Your task to perform on an android device: allow notifications from all sites in the chrome app Image 0: 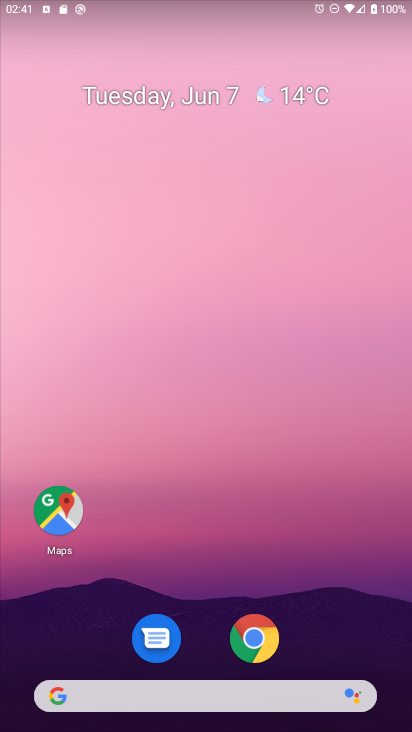
Step 0: drag from (245, 699) to (206, 245)
Your task to perform on an android device: allow notifications from all sites in the chrome app Image 1: 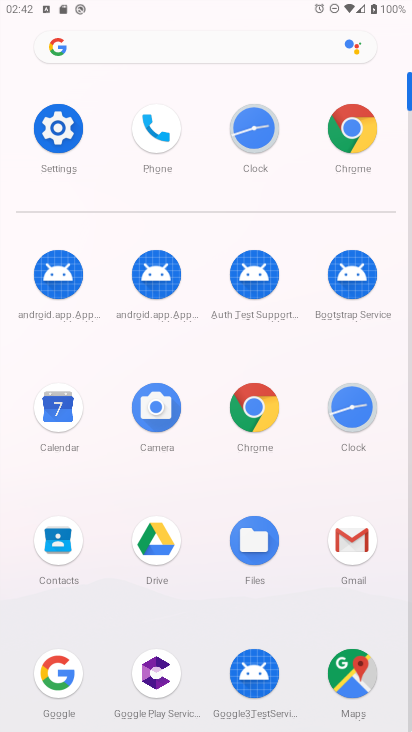
Step 1: click (256, 394)
Your task to perform on an android device: allow notifications from all sites in the chrome app Image 2: 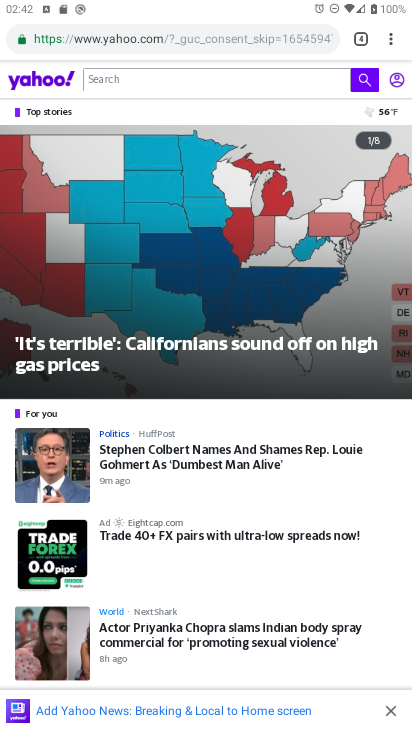
Step 2: click (389, 45)
Your task to perform on an android device: allow notifications from all sites in the chrome app Image 3: 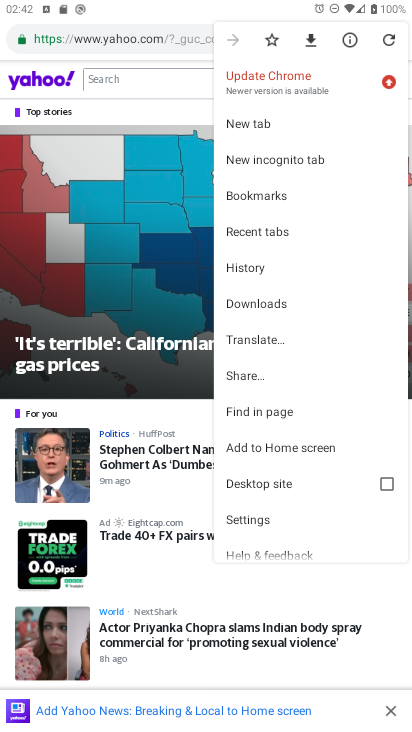
Step 3: click (258, 520)
Your task to perform on an android device: allow notifications from all sites in the chrome app Image 4: 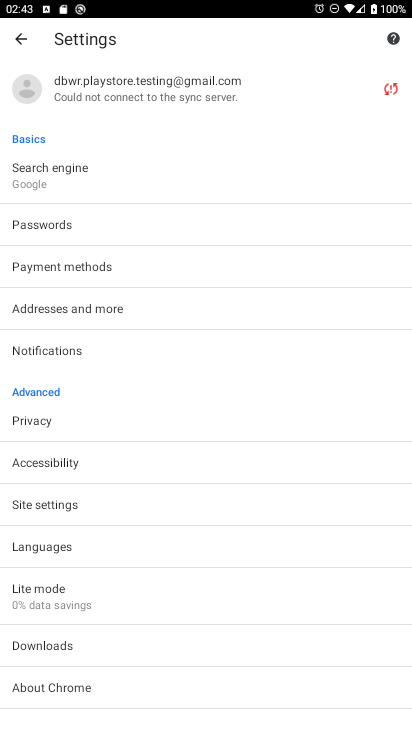
Step 4: click (55, 496)
Your task to perform on an android device: allow notifications from all sites in the chrome app Image 5: 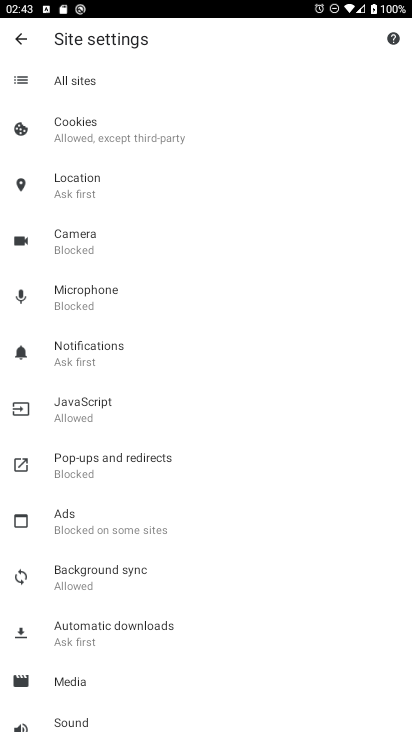
Step 5: click (101, 346)
Your task to perform on an android device: allow notifications from all sites in the chrome app Image 6: 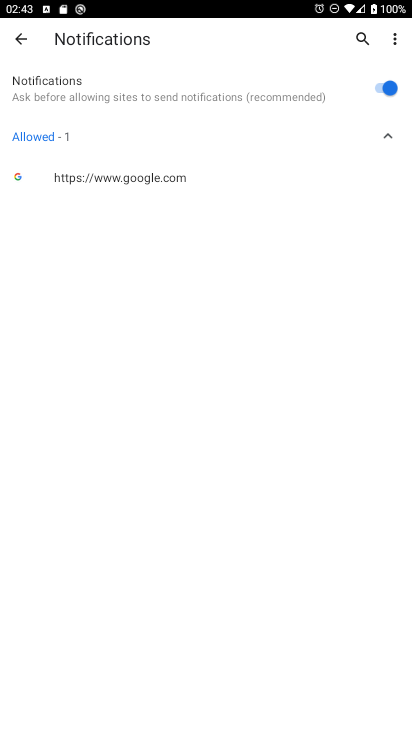
Step 6: click (380, 93)
Your task to perform on an android device: allow notifications from all sites in the chrome app Image 7: 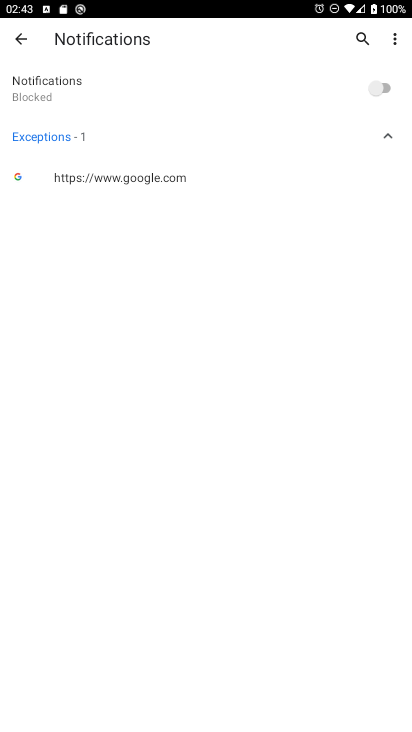
Step 7: click (380, 93)
Your task to perform on an android device: allow notifications from all sites in the chrome app Image 8: 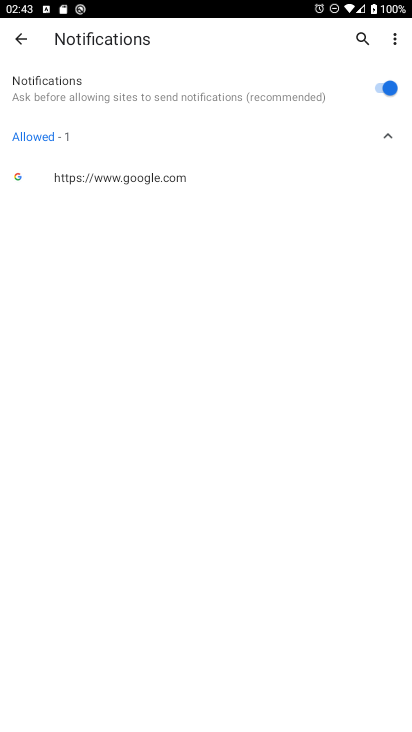
Step 8: press home button
Your task to perform on an android device: allow notifications from all sites in the chrome app Image 9: 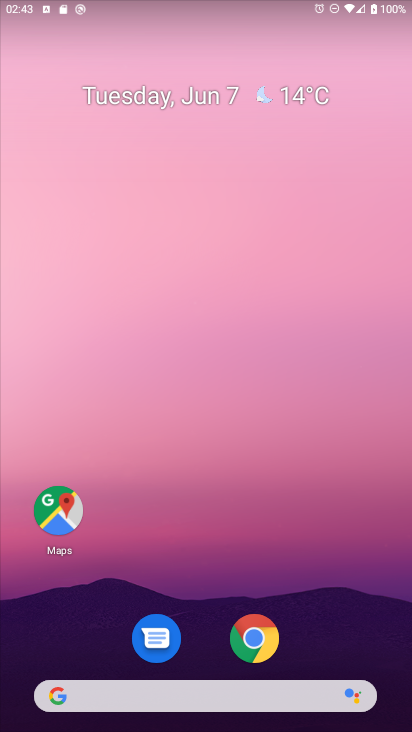
Step 9: drag from (232, 709) to (153, 303)
Your task to perform on an android device: allow notifications from all sites in the chrome app Image 10: 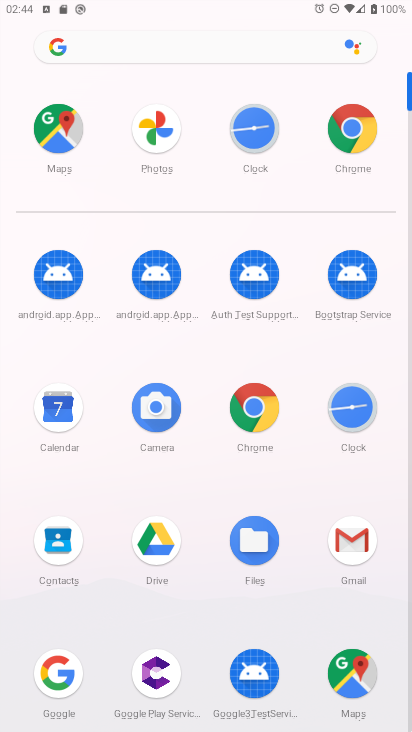
Step 10: click (361, 125)
Your task to perform on an android device: allow notifications from all sites in the chrome app Image 11: 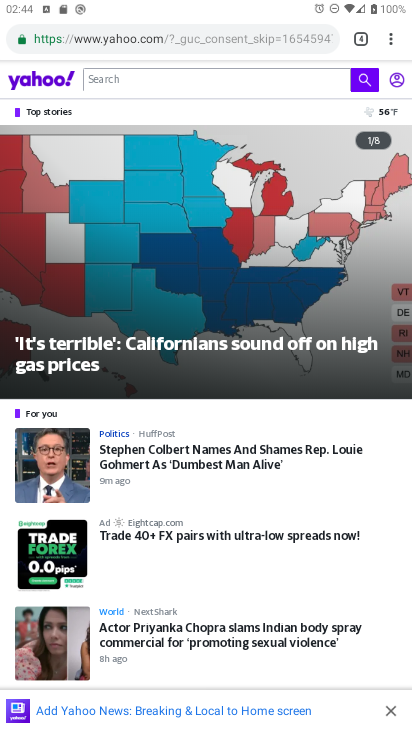
Step 11: click (382, 44)
Your task to perform on an android device: allow notifications from all sites in the chrome app Image 12: 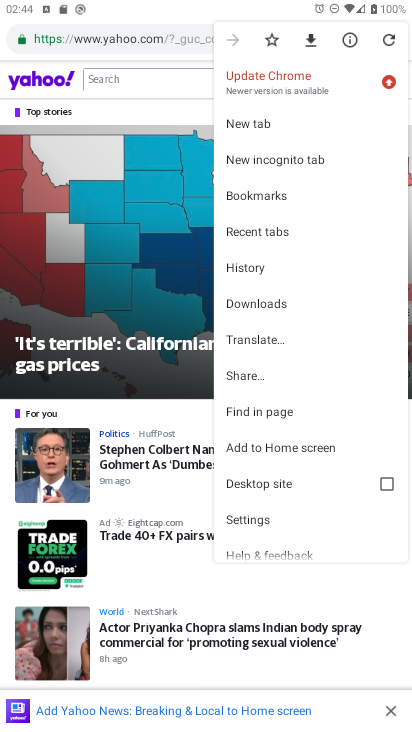
Step 12: click (249, 524)
Your task to perform on an android device: allow notifications from all sites in the chrome app Image 13: 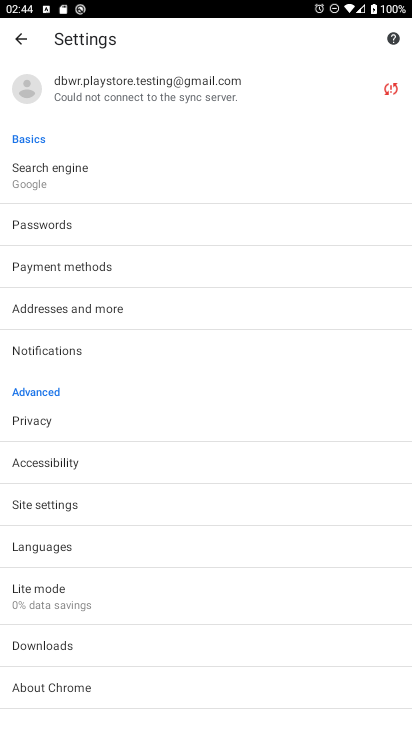
Step 13: click (67, 495)
Your task to perform on an android device: allow notifications from all sites in the chrome app Image 14: 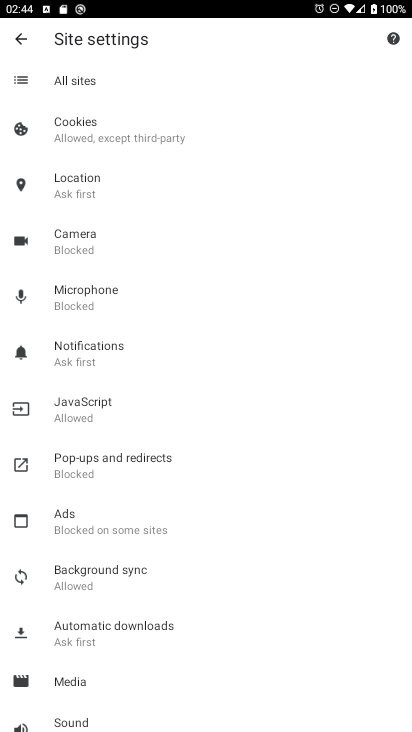
Step 14: click (90, 346)
Your task to perform on an android device: allow notifications from all sites in the chrome app Image 15: 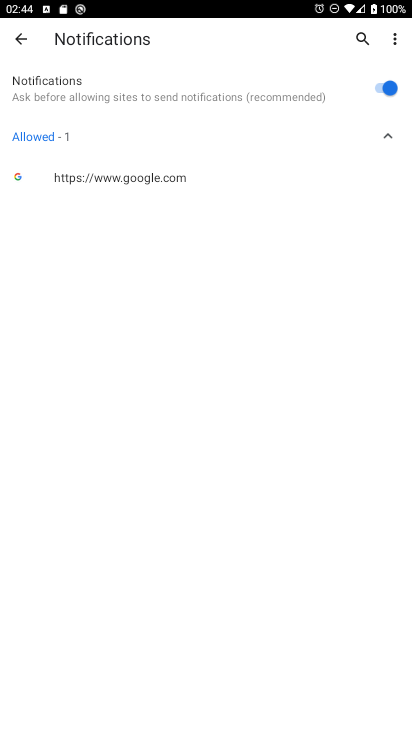
Step 15: task complete